Your task to perform on an android device: Show me the alarms in the clock app Image 0: 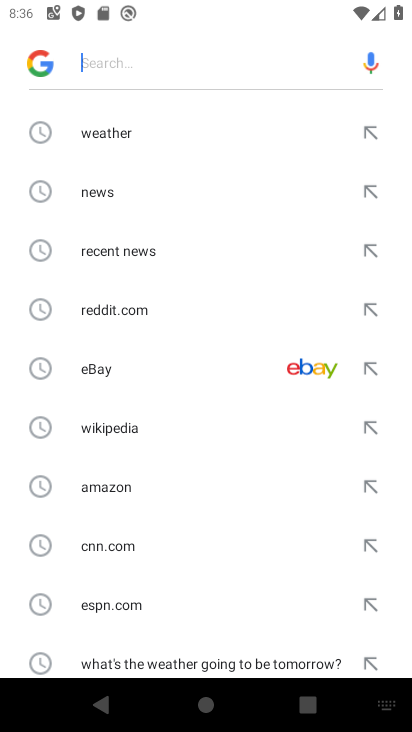
Step 0: press home button
Your task to perform on an android device: Show me the alarms in the clock app Image 1: 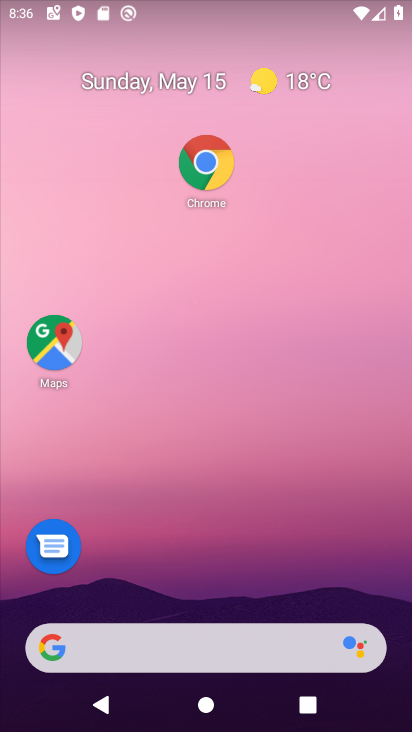
Step 1: drag from (307, 562) to (295, 90)
Your task to perform on an android device: Show me the alarms in the clock app Image 2: 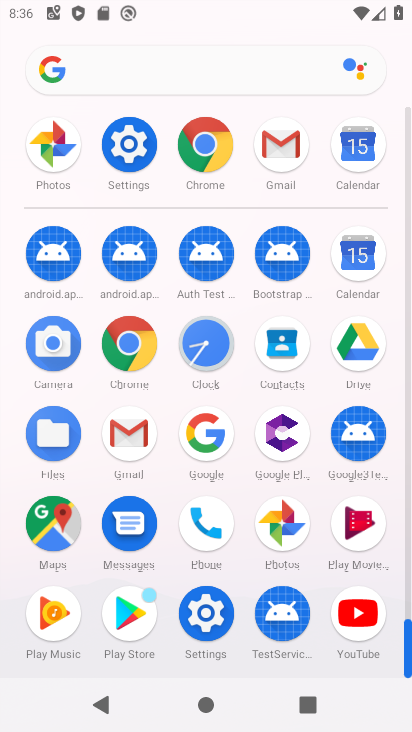
Step 2: click (202, 340)
Your task to perform on an android device: Show me the alarms in the clock app Image 3: 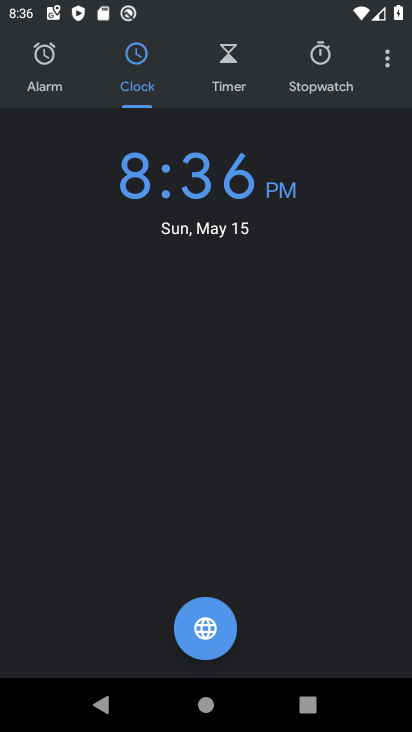
Step 3: click (56, 70)
Your task to perform on an android device: Show me the alarms in the clock app Image 4: 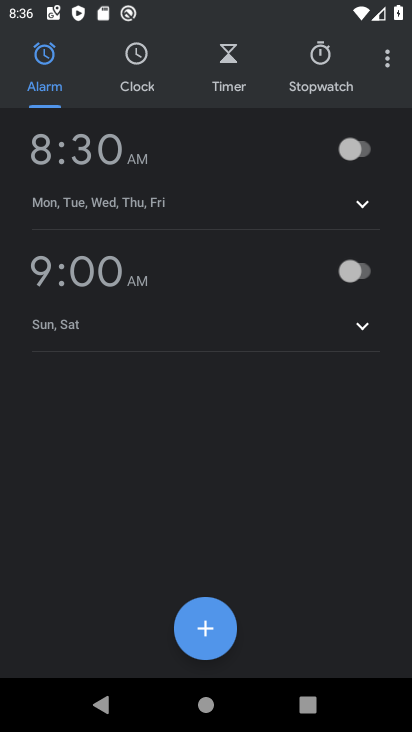
Step 4: task complete